Your task to perform on an android device: turn on the 12-hour format for clock Image 0: 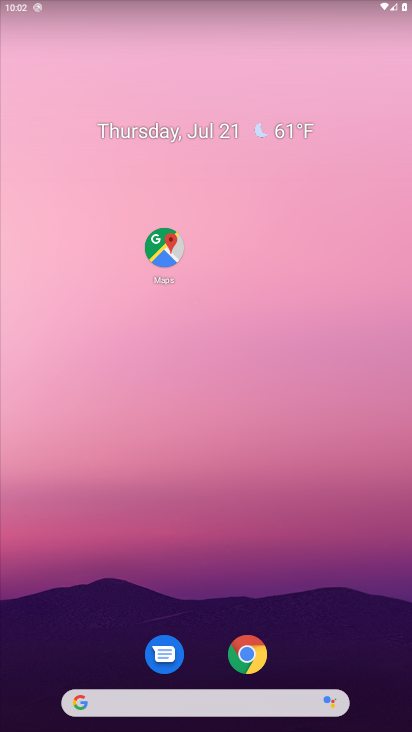
Step 0: drag from (55, 599) to (279, 51)
Your task to perform on an android device: turn on the 12-hour format for clock Image 1: 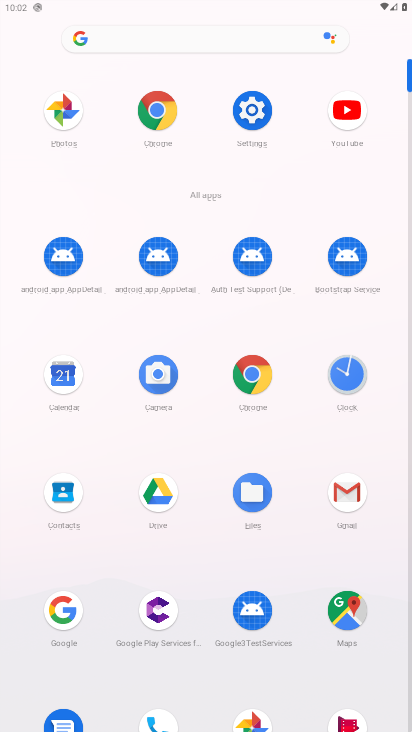
Step 1: click (344, 374)
Your task to perform on an android device: turn on the 12-hour format for clock Image 2: 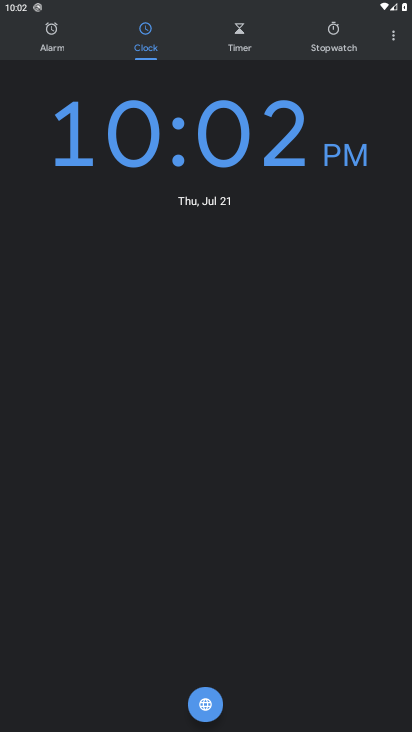
Step 2: click (391, 34)
Your task to perform on an android device: turn on the 12-hour format for clock Image 3: 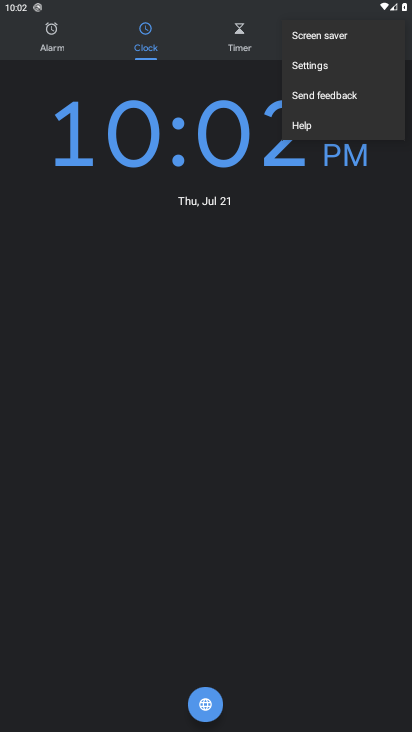
Step 3: click (311, 68)
Your task to perform on an android device: turn on the 12-hour format for clock Image 4: 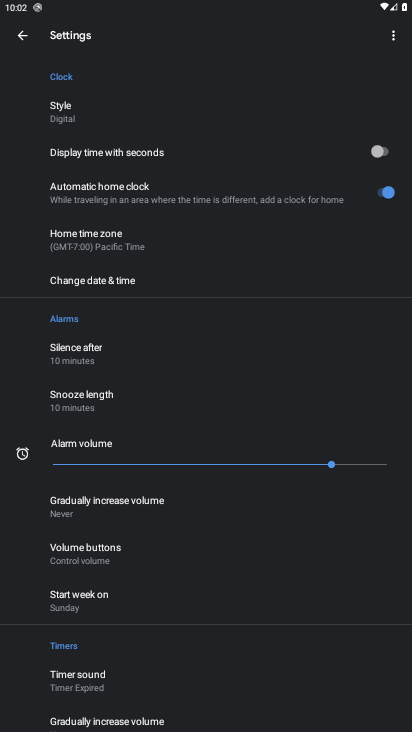
Step 4: drag from (204, 618) to (206, 430)
Your task to perform on an android device: turn on the 12-hour format for clock Image 5: 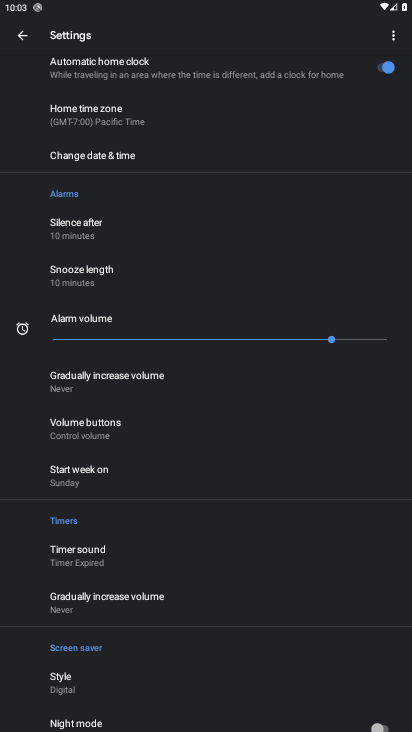
Step 5: drag from (191, 703) to (184, 359)
Your task to perform on an android device: turn on the 12-hour format for clock Image 6: 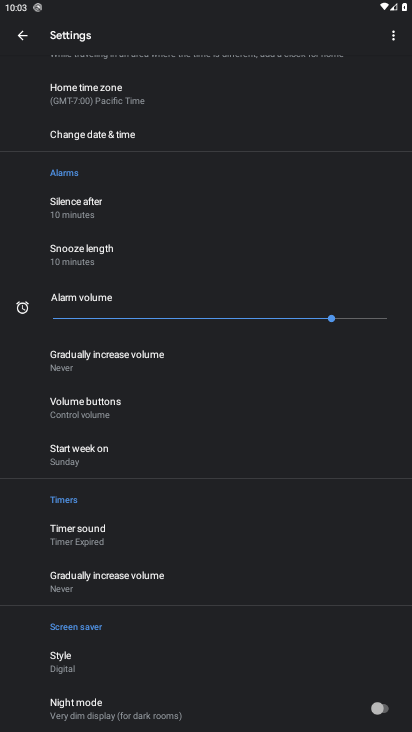
Step 6: click (109, 136)
Your task to perform on an android device: turn on the 12-hour format for clock Image 7: 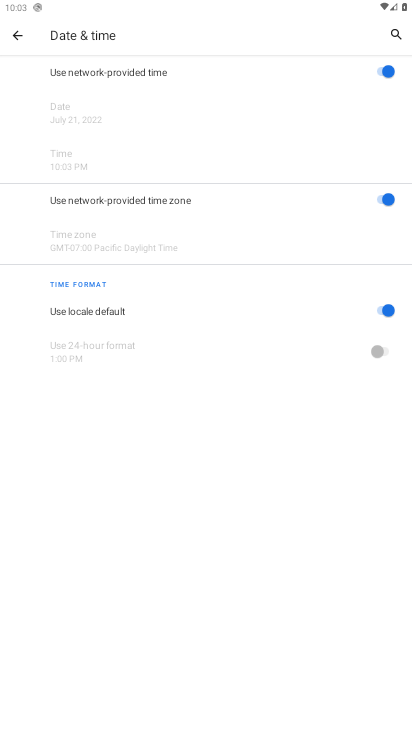
Step 7: click (95, 350)
Your task to perform on an android device: turn on the 12-hour format for clock Image 8: 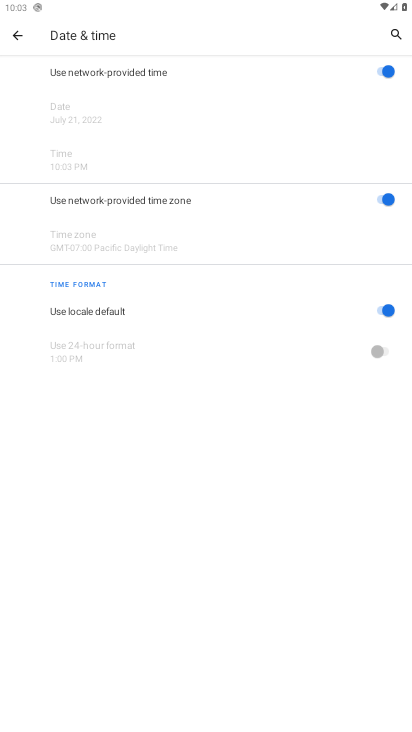
Step 8: click (387, 308)
Your task to perform on an android device: turn on the 12-hour format for clock Image 9: 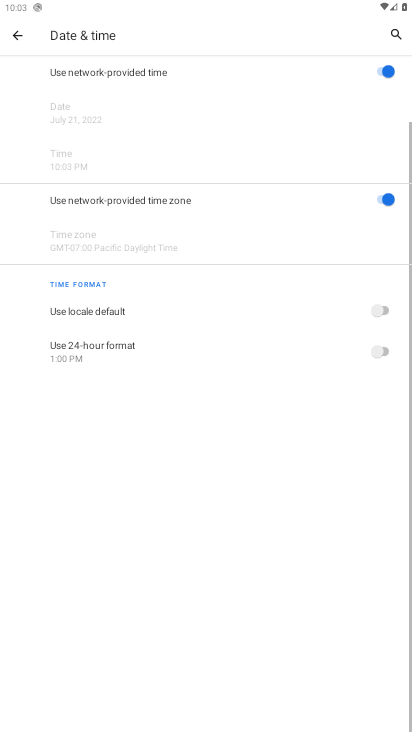
Step 9: click (376, 353)
Your task to perform on an android device: turn on the 12-hour format for clock Image 10: 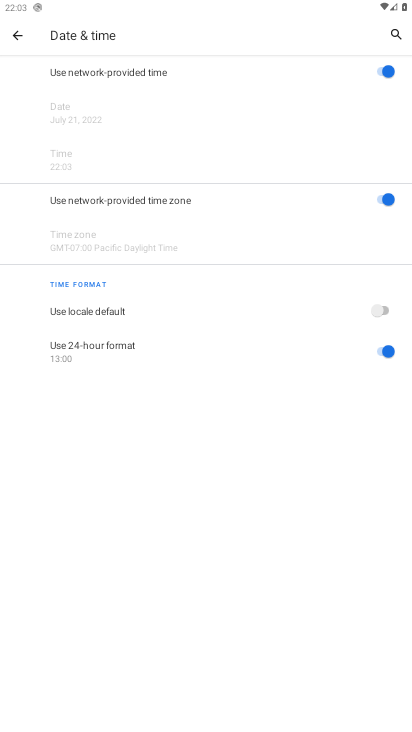
Step 10: task complete